Your task to perform on an android device: Go to ESPN.com Image 0: 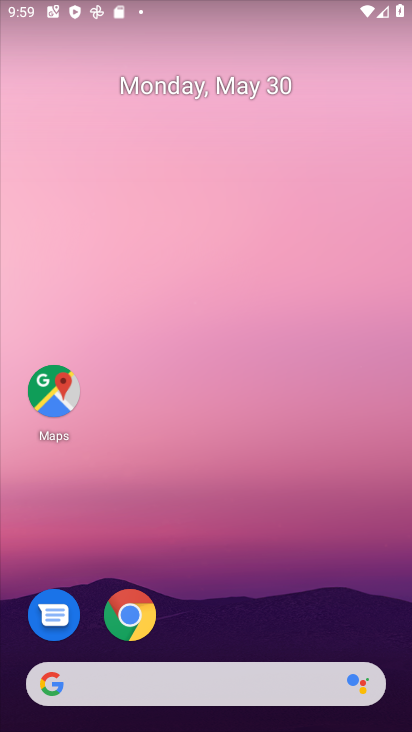
Step 0: click (135, 607)
Your task to perform on an android device: Go to ESPN.com Image 1: 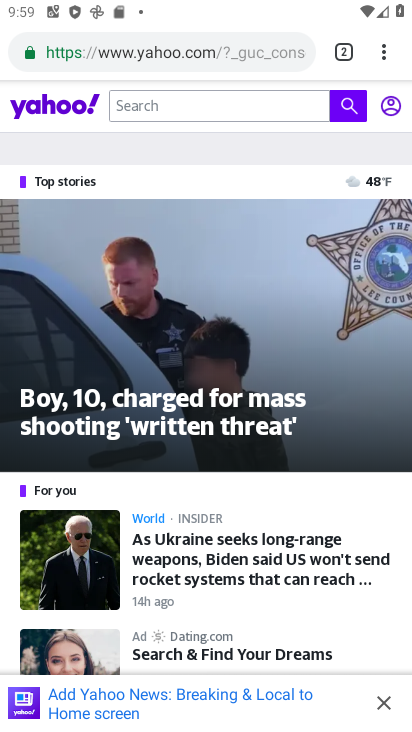
Step 1: click (344, 42)
Your task to perform on an android device: Go to ESPN.com Image 2: 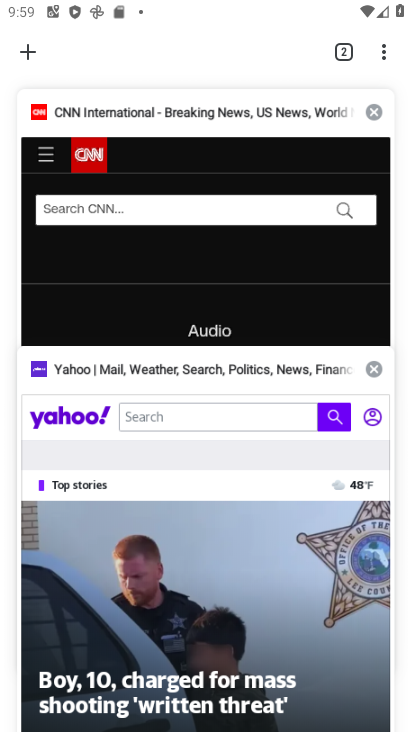
Step 2: click (30, 55)
Your task to perform on an android device: Go to ESPN.com Image 3: 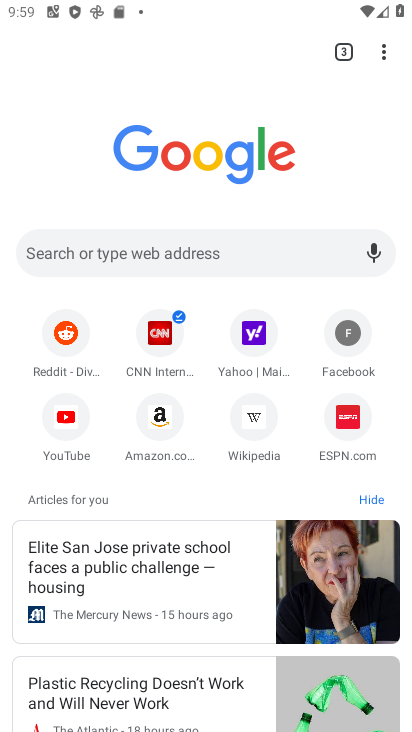
Step 3: click (335, 425)
Your task to perform on an android device: Go to ESPN.com Image 4: 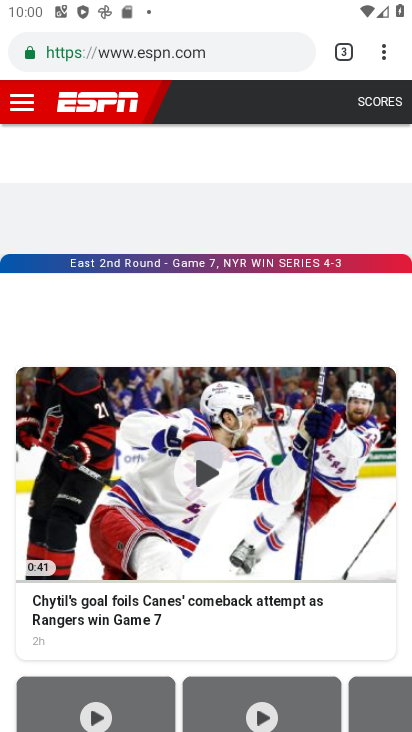
Step 4: task complete